Your task to perform on an android device: What's the weather going to be tomorrow? Image 0: 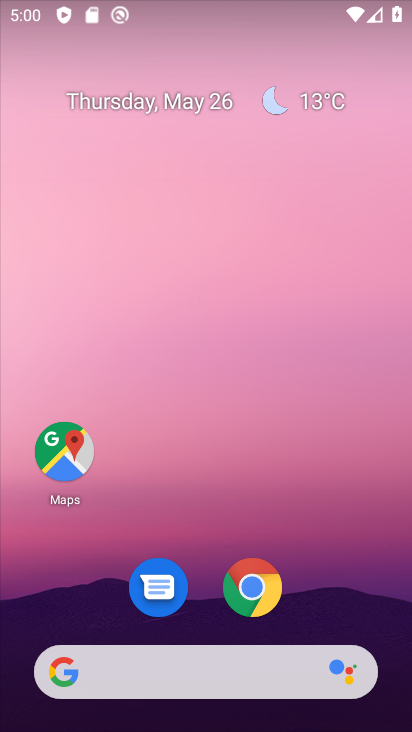
Step 0: drag from (242, 716) to (236, 79)
Your task to perform on an android device: What's the weather going to be tomorrow? Image 1: 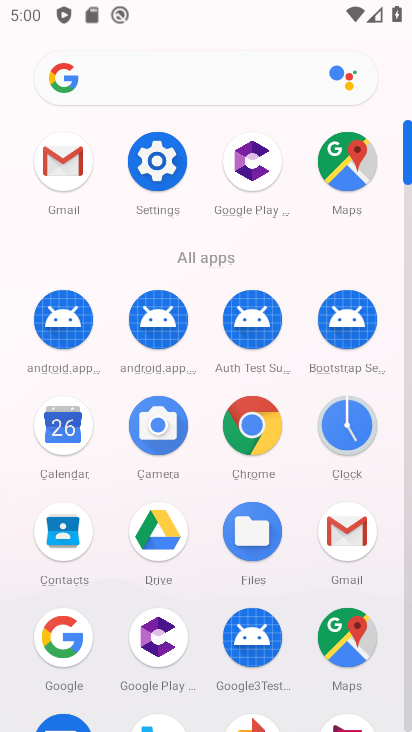
Step 1: click (64, 639)
Your task to perform on an android device: What's the weather going to be tomorrow? Image 2: 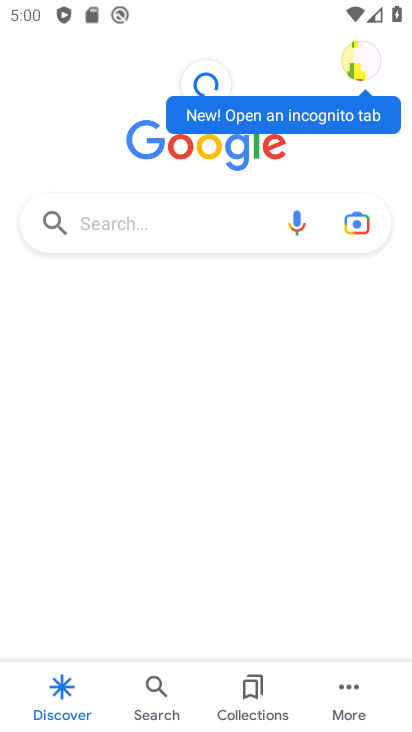
Step 2: click (180, 229)
Your task to perform on an android device: What's the weather going to be tomorrow? Image 3: 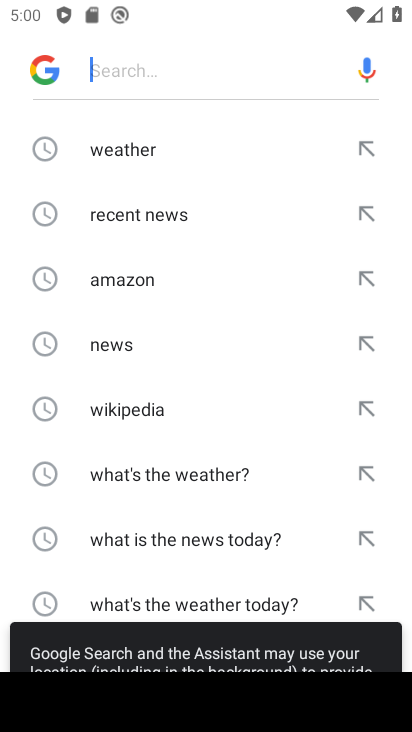
Step 3: click (113, 150)
Your task to perform on an android device: What's the weather going to be tomorrow? Image 4: 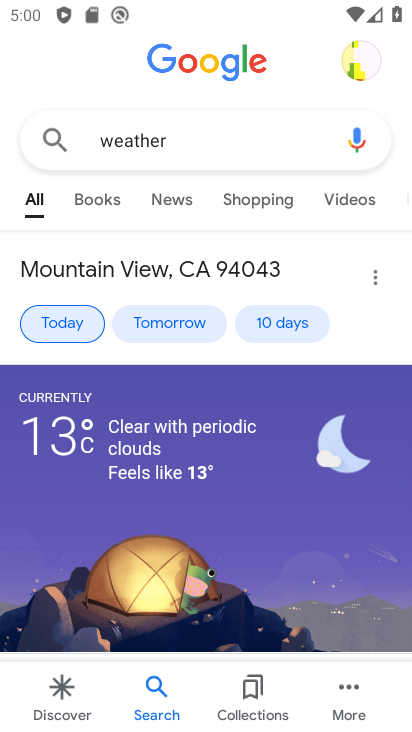
Step 4: click (189, 322)
Your task to perform on an android device: What's the weather going to be tomorrow? Image 5: 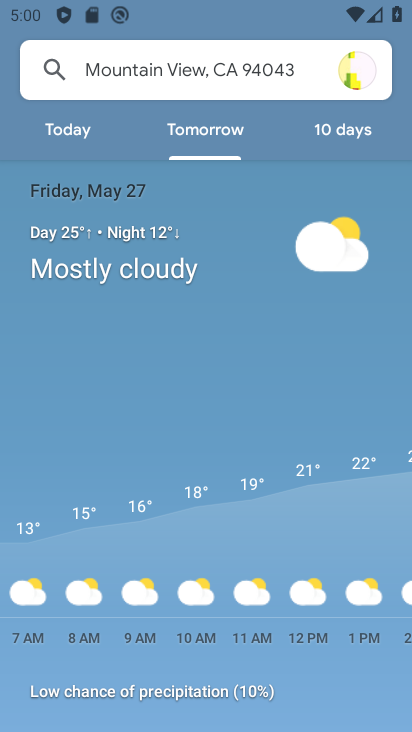
Step 5: task complete